Your task to perform on an android device: Go to eBay Image 0: 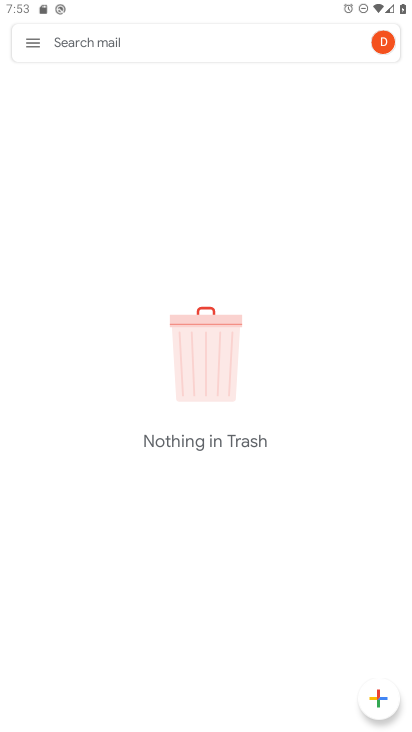
Step 0: press home button
Your task to perform on an android device: Go to eBay Image 1: 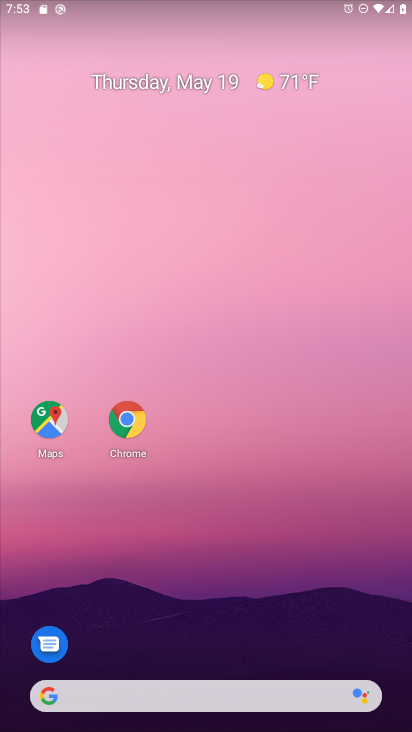
Step 1: click (134, 410)
Your task to perform on an android device: Go to eBay Image 2: 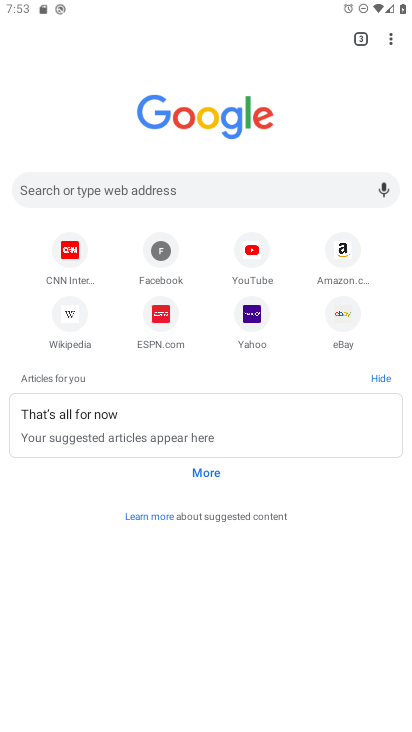
Step 2: click (339, 315)
Your task to perform on an android device: Go to eBay Image 3: 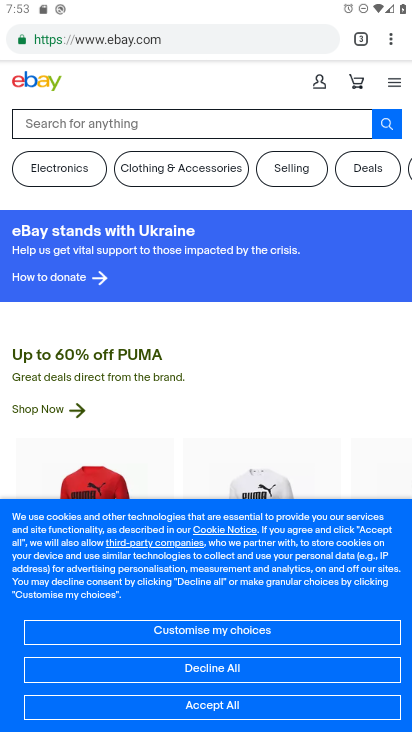
Step 3: task complete